Your task to perform on an android device: Open Maps and search for coffee Image 0: 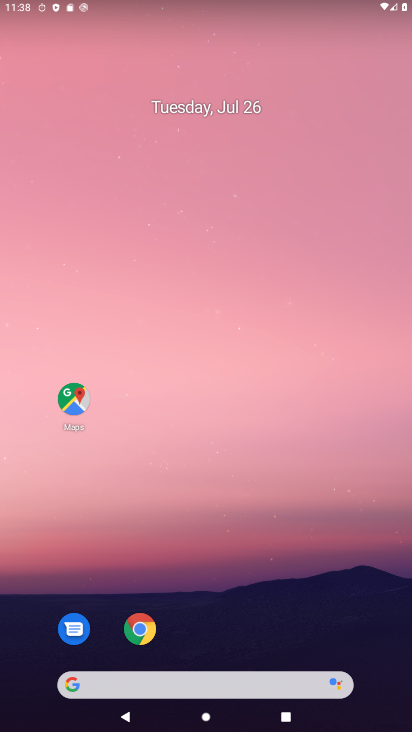
Step 0: drag from (351, 623) to (143, 6)
Your task to perform on an android device: Open Maps and search for coffee Image 1: 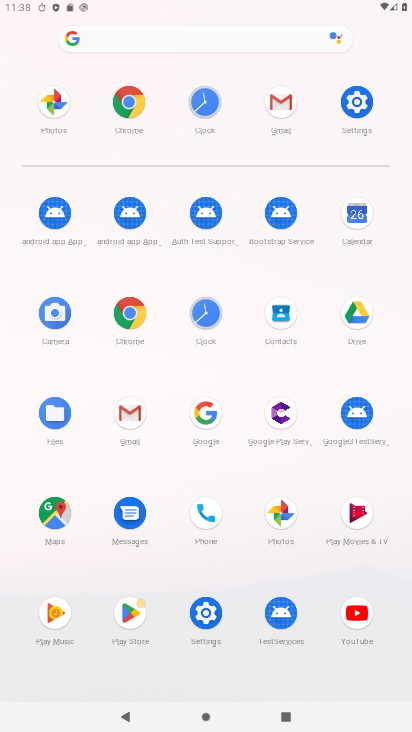
Step 1: click (47, 512)
Your task to perform on an android device: Open Maps and search for coffee Image 2: 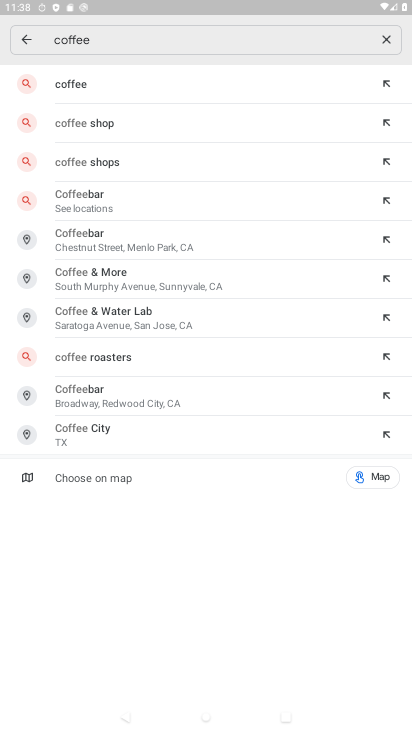
Step 2: press back button
Your task to perform on an android device: Open Maps and search for coffee Image 3: 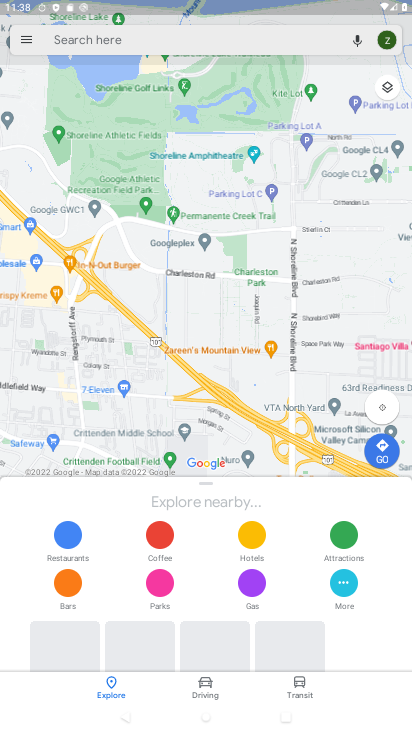
Step 3: click (134, 41)
Your task to perform on an android device: Open Maps and search for coffee Image 4: 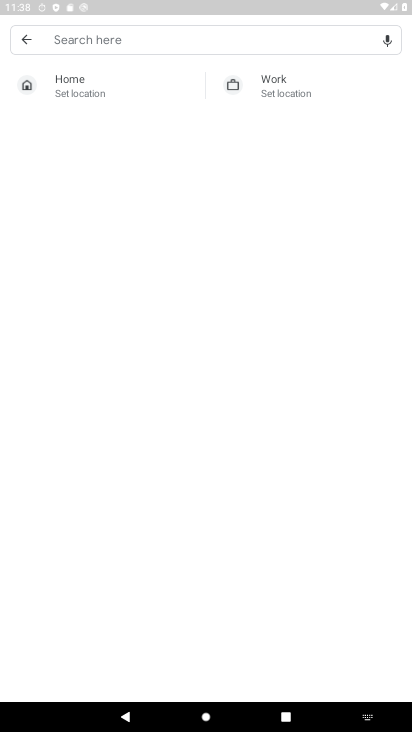
Step 4: type "coffee"
Your task to perform on an android device: Open Maps and search for coffee Image 5: 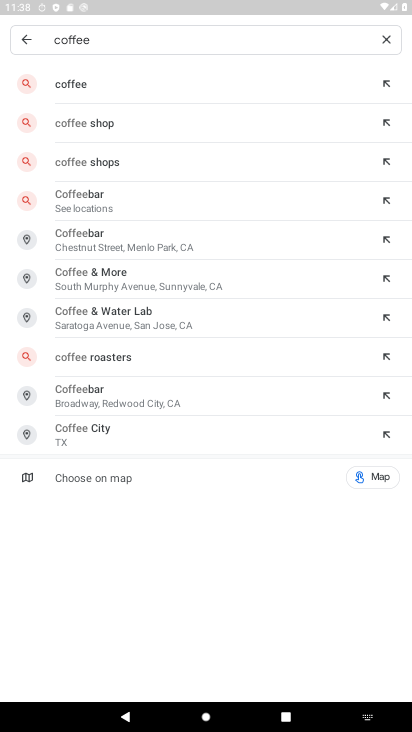
Step 5: click (88, 77)
Your task to perform on an android device: Open Maps and search for coffee Image 6: 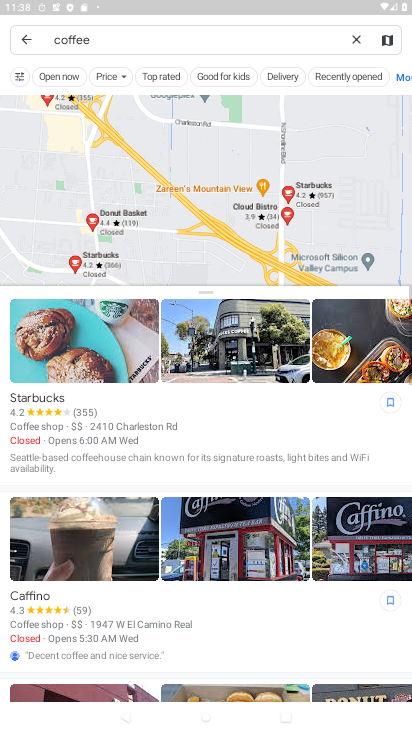
Step 6: task complete